Your task to perform on an android device: Open Youtube and go to the subscriptions tab Image 0: 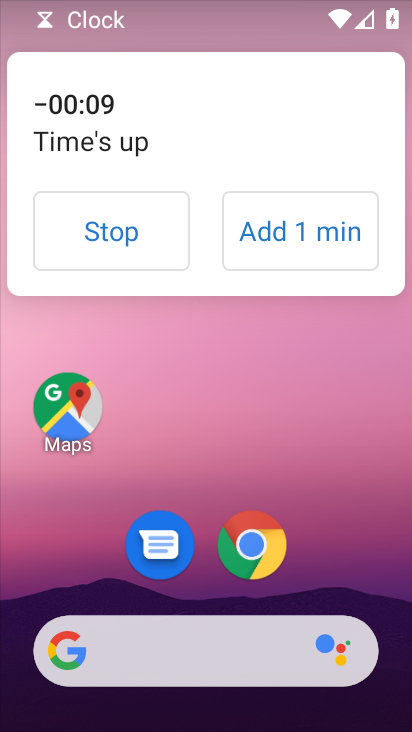
Step 0: click (109, 212)
Your task to perform on an android device: Open Youtube and go to the subscriptions tab Image 1: 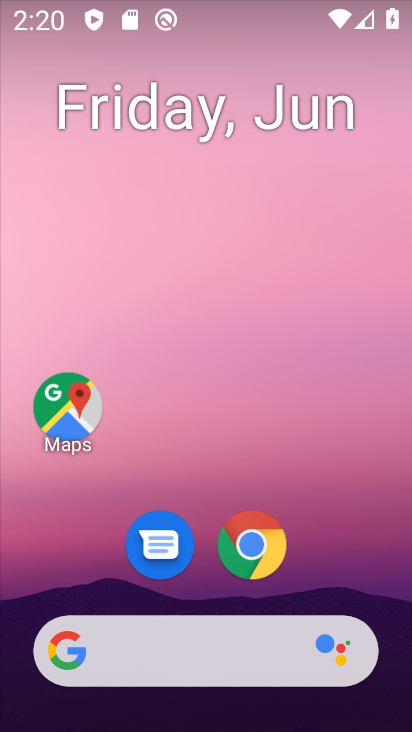
Step 1: drag from (204, 568) to (225, 108)
Your task to perform on an android device: Open Youtube and go to the subscriptions tab Image 2: 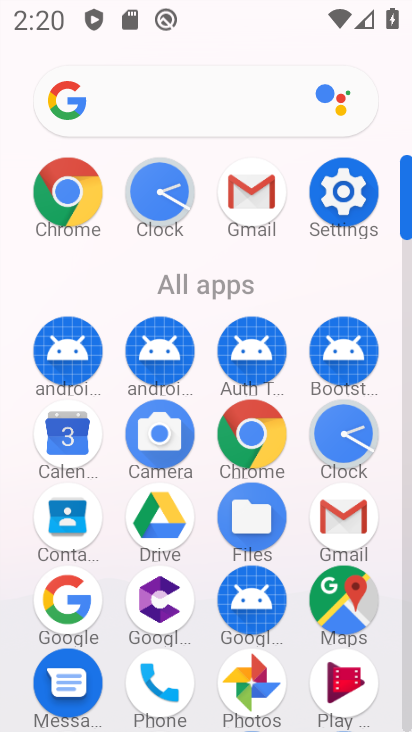
Step 2: drag from (210, 588) to (233, 151)
Your task to perform on an android device: Open Youtube and go to the subscriptions tab Image 3: 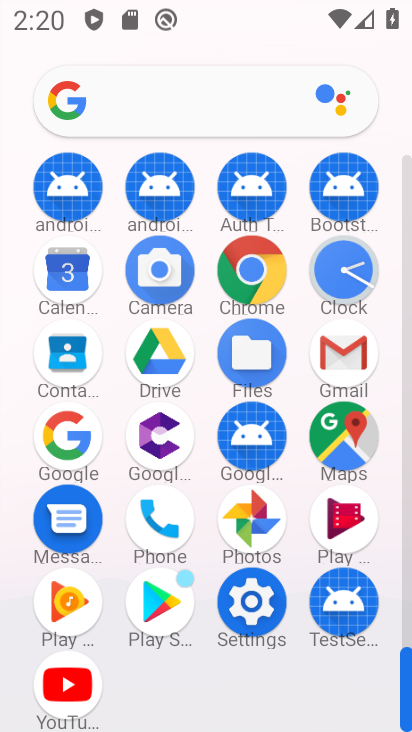
Step 3: click (67, 702)
Your task to perform on an android device: Open Youtube and go to the subscriptions tab Image 4: 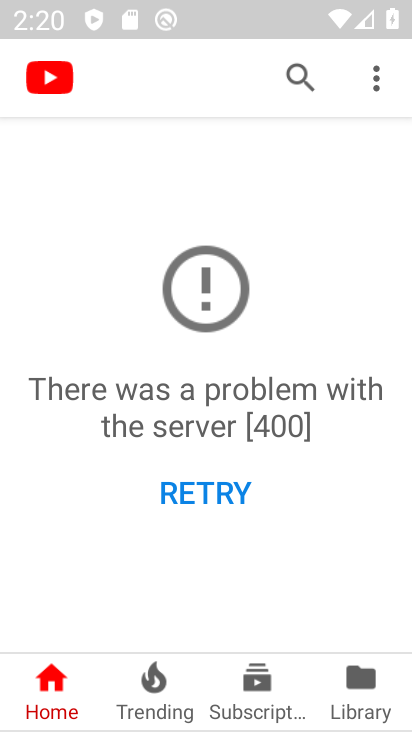
Step 4: click (217, 480)
Your task to perform on an android device: Open Youtube and go to the subscriptions tab Image 5: 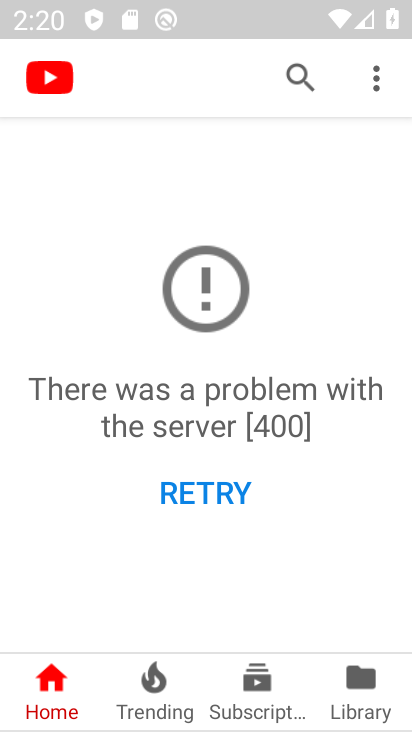
Step 5: click (222, 502)
Your task to perform on an android device: Open Youtube and go to the subscriptions tab Image 6: 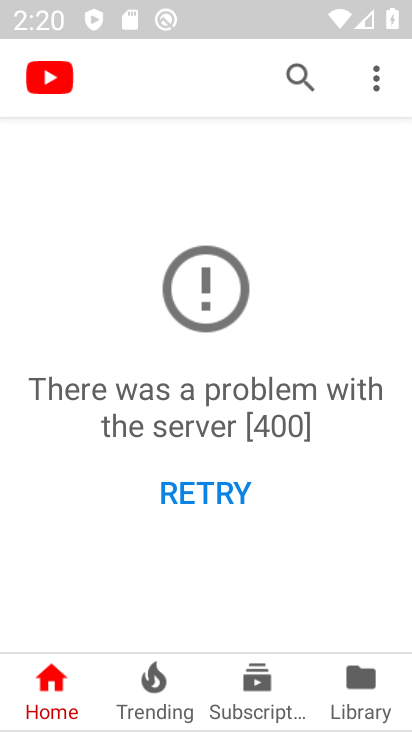
Step 6: click (222, 502)
Your task to perform on an android device: Open Youtube and go to the subscriptions tab Image 7: 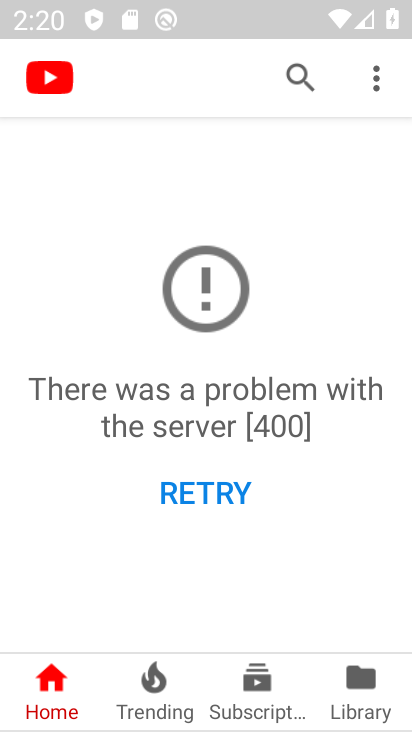
Step 7: click (221, 498)
Your task to perform on an android device: Open Youtube and go to the subscriptions tab Image 8: 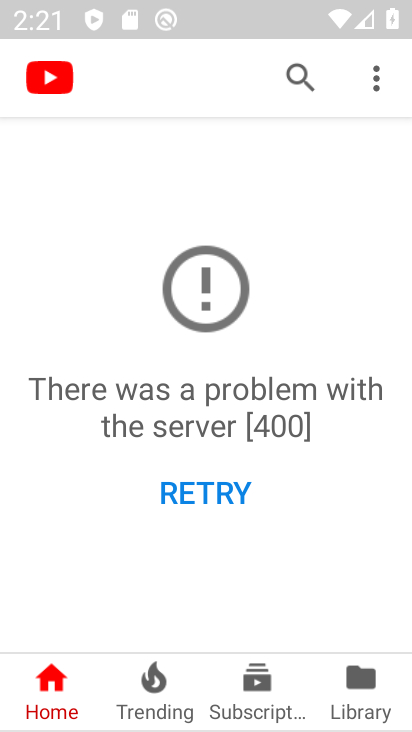
Step 8: click (252, 684)
Your task to perform on an android device: Open Youtube and go to the subscriptions tab Image 9: 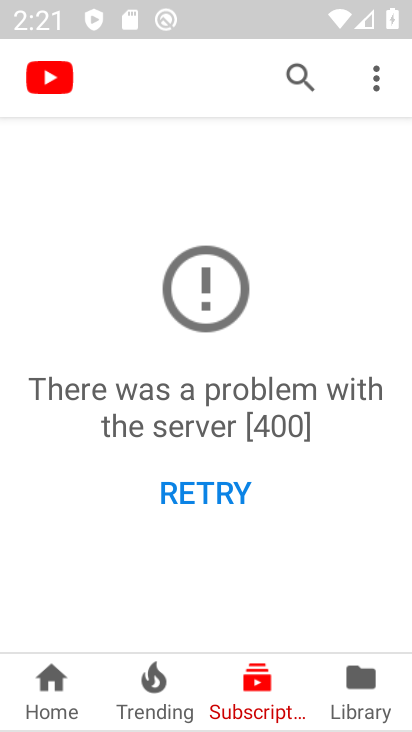
Step 9: task complete